Your task to perform on an android device: Open Yahoo.com Image 0: 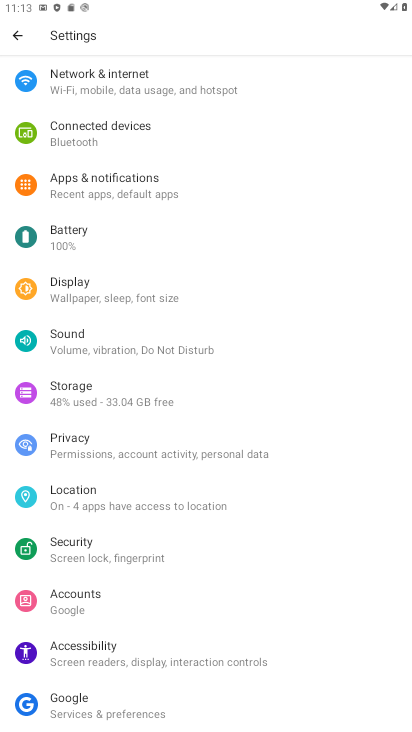
Step 0: press home button
Your task to perform on an android device: Open Yahoo.com Image 1: 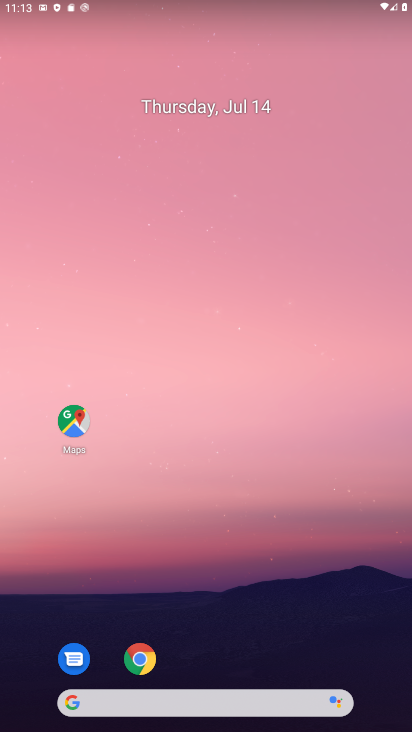
Step 1: drag from (219, 610) to (240, 125)
Your task to perform on an android device: Open Yahoo.com Image 2: 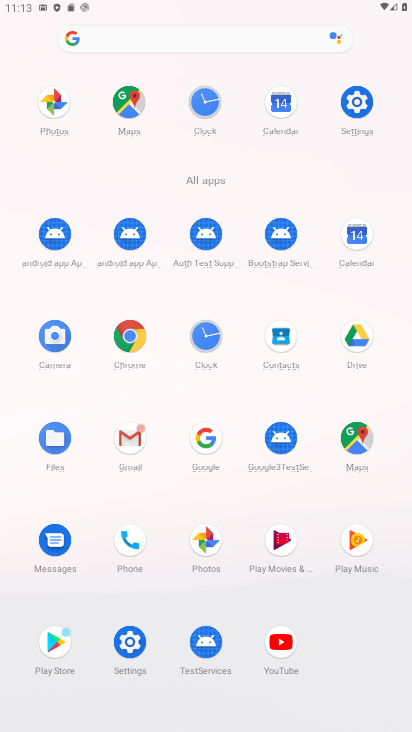
Step 2: click (129, 328)
Your task to perform on an android device: Open Yahoo.com Image 3: 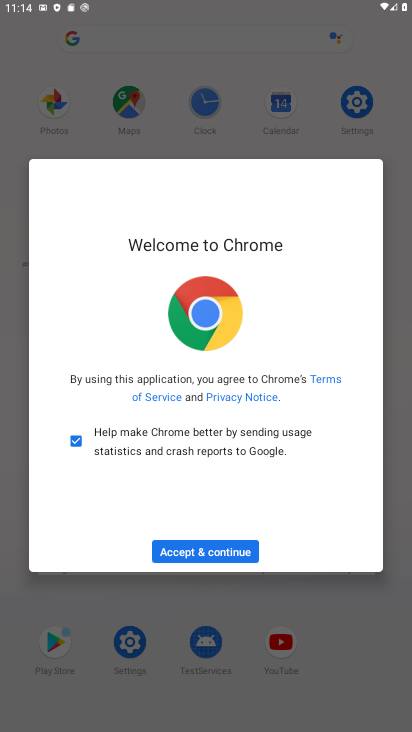
Step 3: click (191, 547)
Your task to perform on an android device: Open Yahoo.com Image 4: 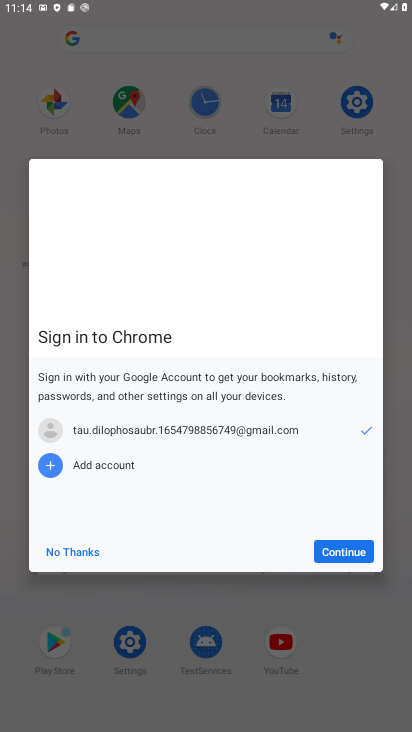
Step 4: click (346, 549)
Your task to perform on an android device: Open Yahoo.com Image 5: 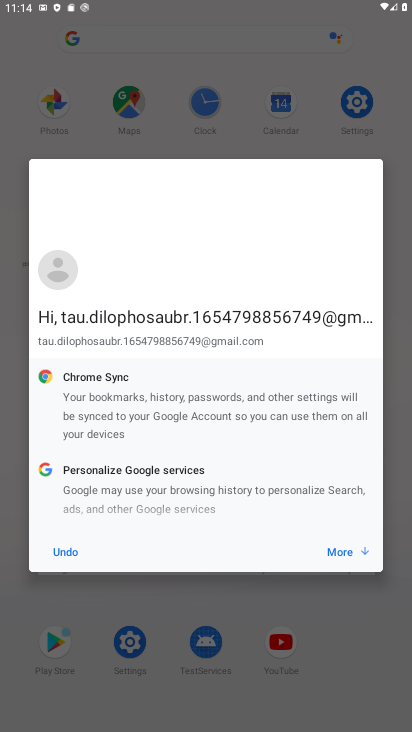
Step 5: click (344, 549)
Your task to perform on an android device: Open Yahoo.com Image 6: 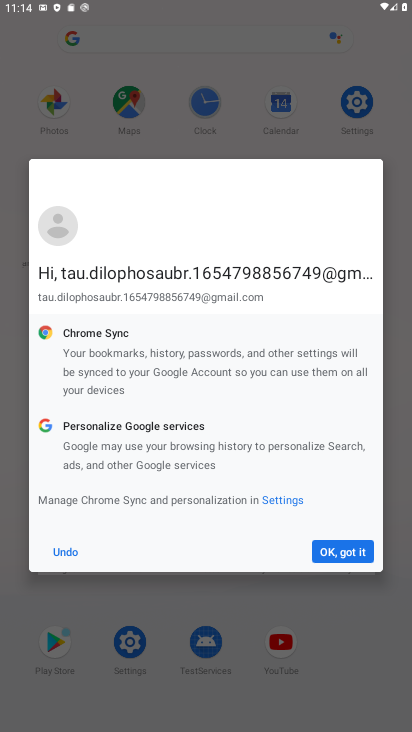
Step 6: click (344, 549)
Your task to perform on an android device: Open Yahoo.com Image 7: 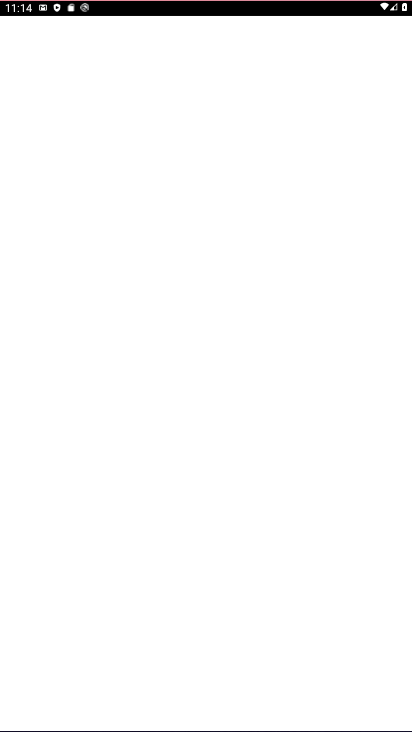
Step 7: click (344, 549)
Your task to perform on an android device: Open Yahoo.com Image 8: 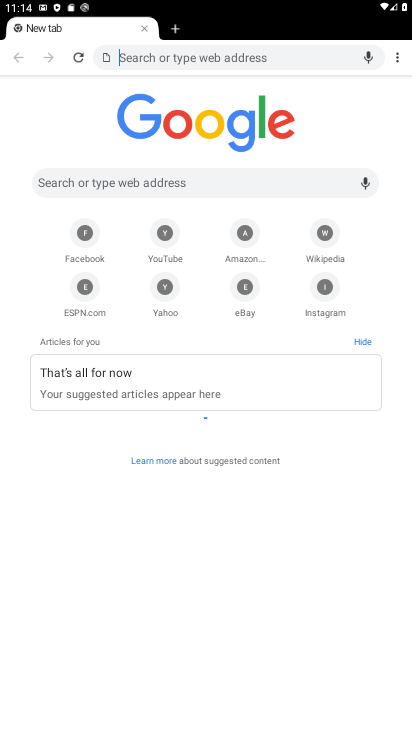
Step 8: click (294, 553)
Your task to perform on an android device: Open Yahoo.com Image 9: 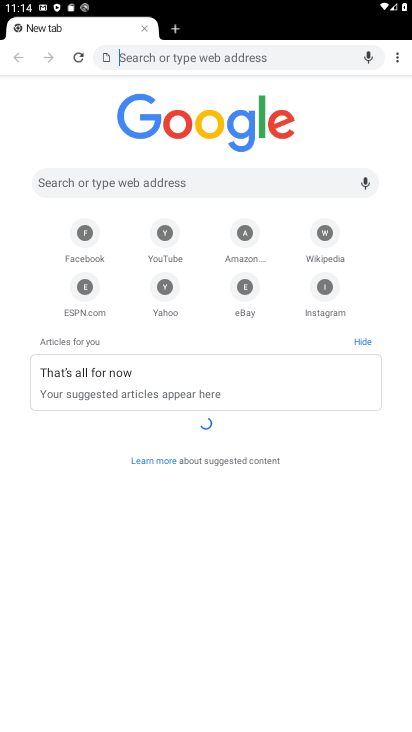
Step 9: click (294, 553)
Your task to perform on an android device: Open Yahoo.com Image 10: 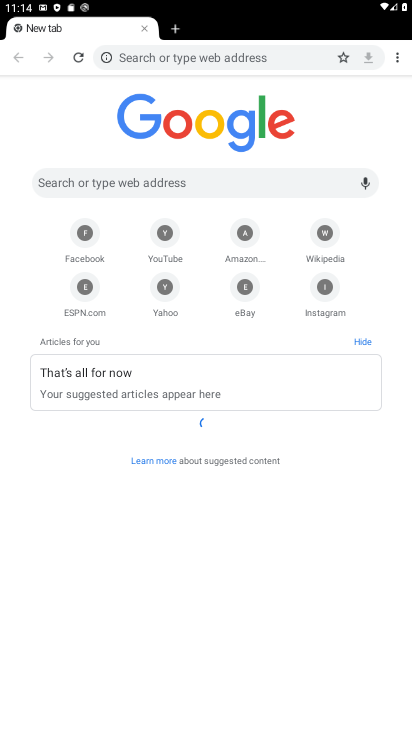
Step 10: click (151, 289)
Your task to perform on an android device: Open Yahoo.com Image 11: 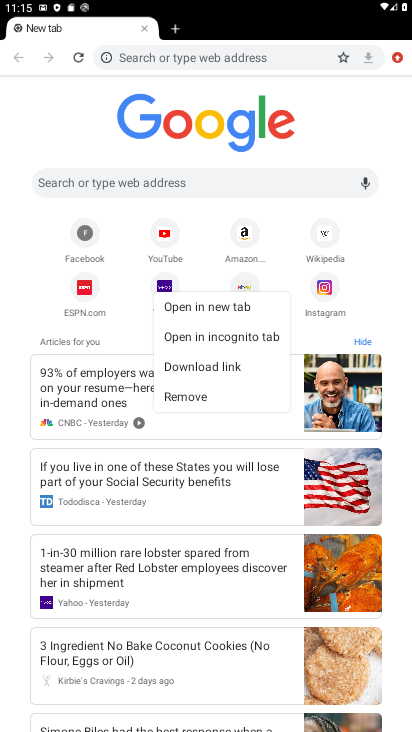
Step 11: click (167, 291)
Your task to perform on an android device: Open Yahoo.com Image 12: 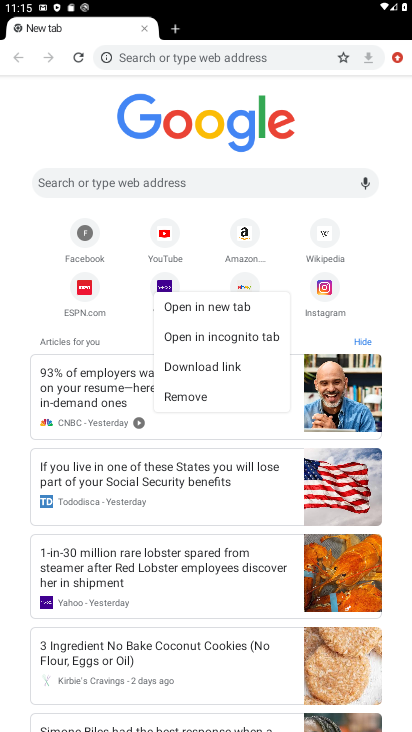
Step 12: click (165, 291)
Your task to perform on an android device: Open Yahoo.com Image 13: 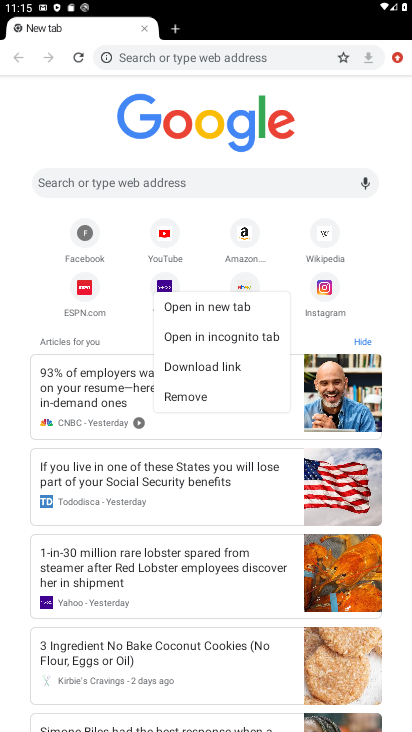
Step 13: click (216, 297)
Your task to perform on an android device: Open Yahoo.com Image 14: 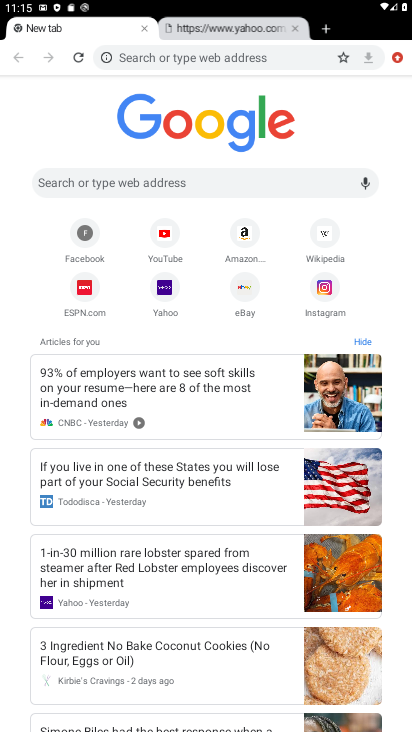
Step 14: click (214, 301)
Your task to perform on an android device: Open Yahoo.com Image 15: 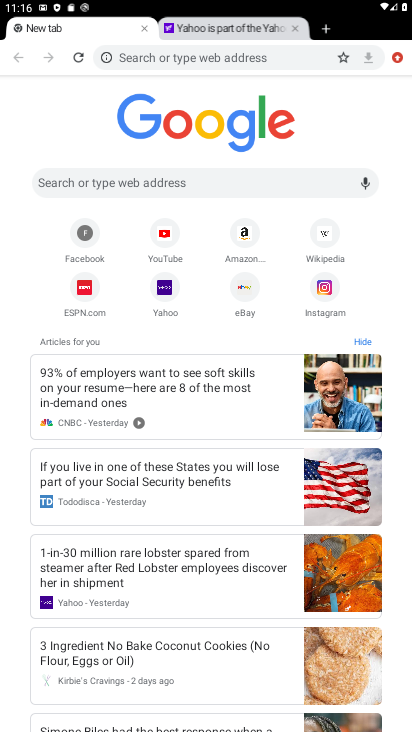
Step 15: click (159, 282)
Your task to perform on an android device: Open Yahoo.com Image 16: 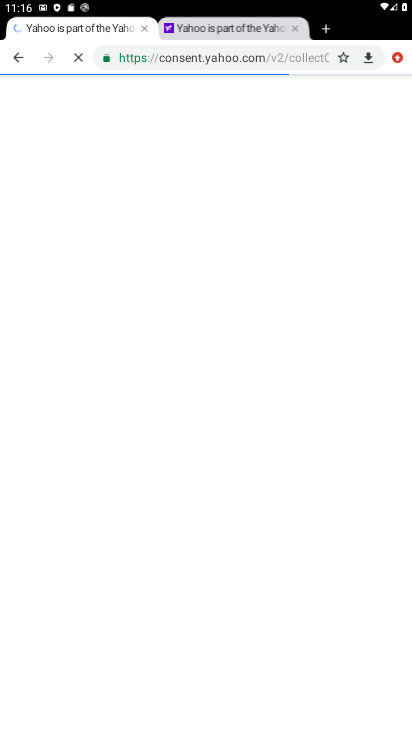
Step 16: task complete